Your task to perform on an android device: open chrome and create a bookmark for the current page Image 0: 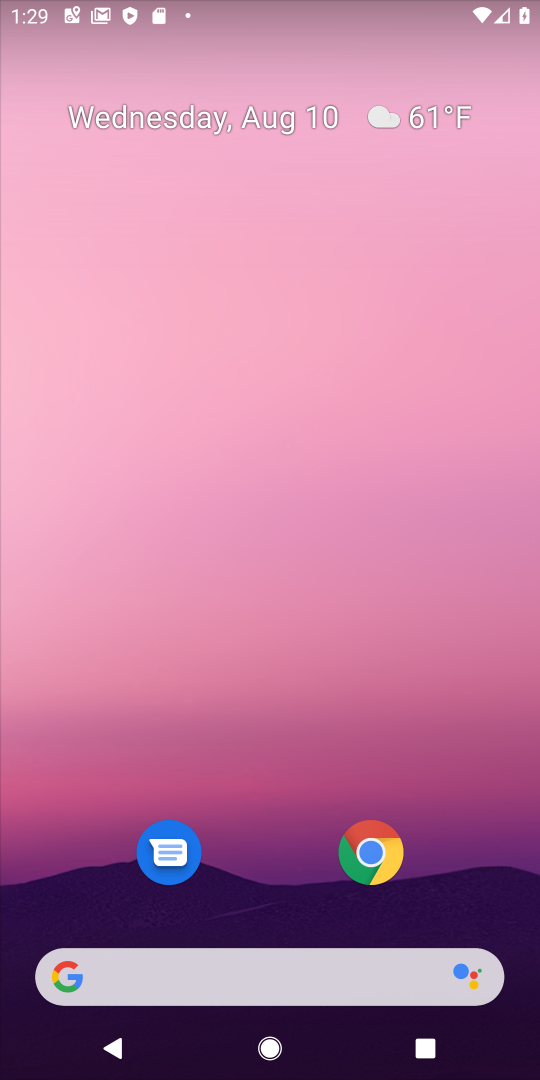
Step 0: drag from (265, 853) to (355, 6)
Your task to perform on an android device: open chrome and create a bookmark for the current page Image 1: 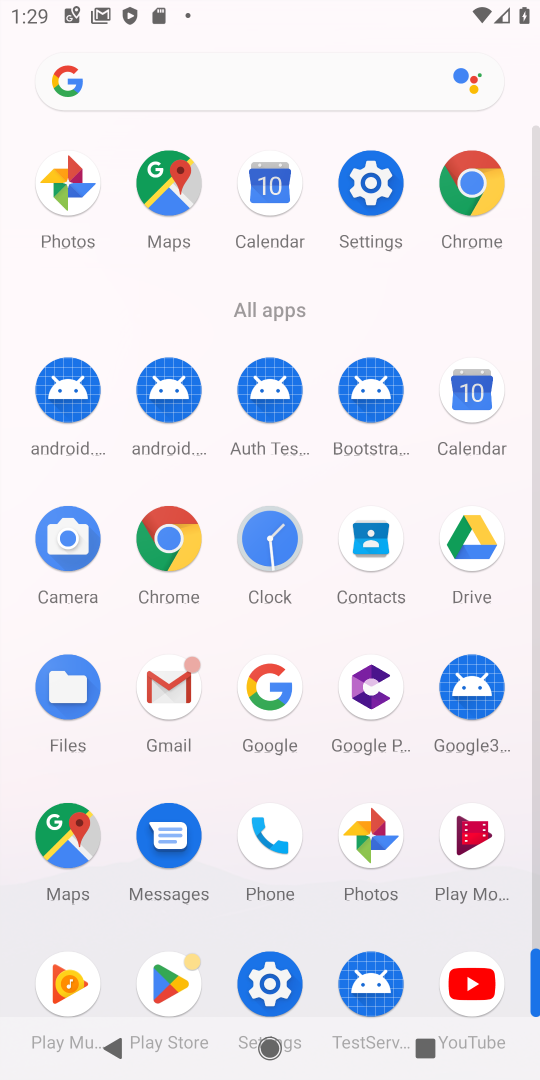
Step 1: click (158, 542)
Your task to perform on an android device: open chrome and create a bookmark for the current page Image 2: 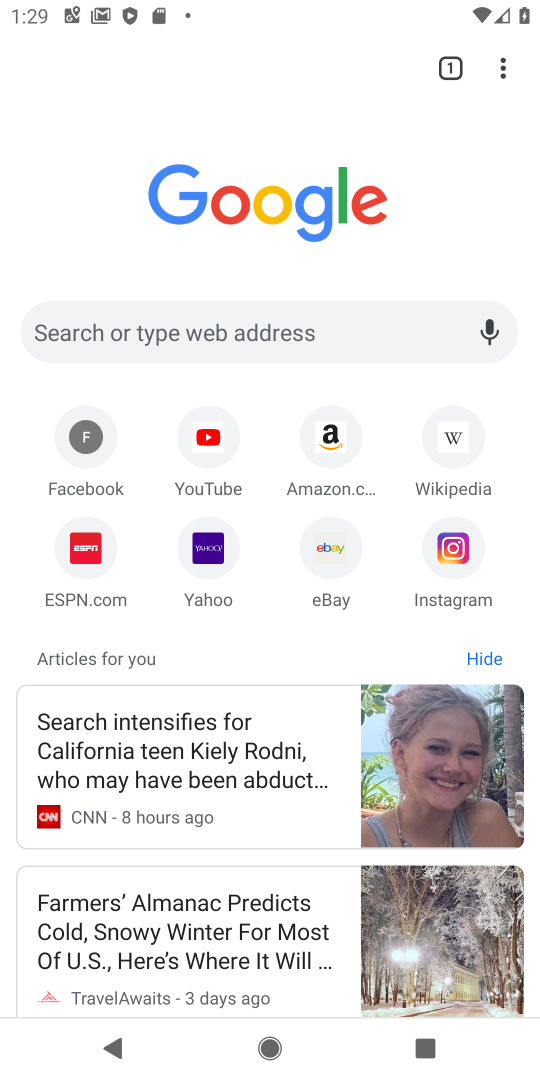
Step 2: task complete